Your task to perform on an android device: Search for seafood restaurants on Google Maps Image 0: 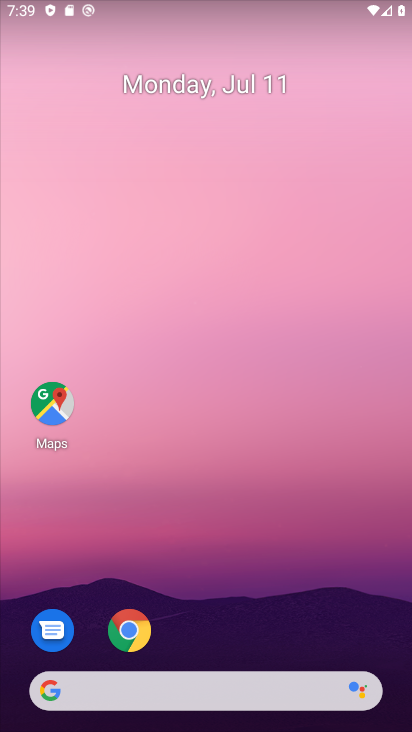
Step 0: click (52, 399)
Your task to perform on an android device: Search for seafood restaurants on Google Maps Image 1: 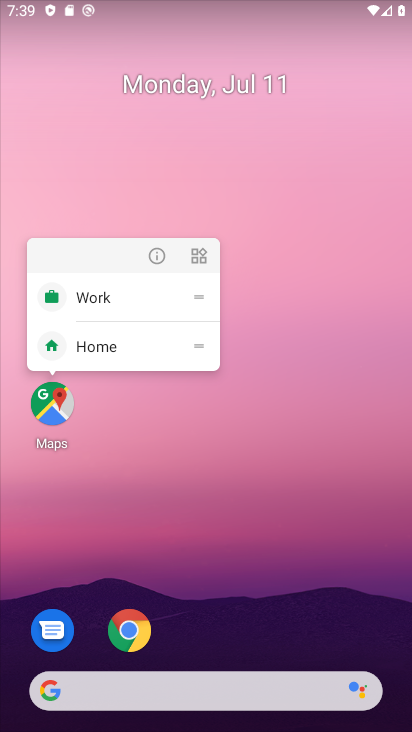
Step 1: click (52, 399)
Your task to perform on an android device: Search for seafood restaurants on Google Maps Image 2: 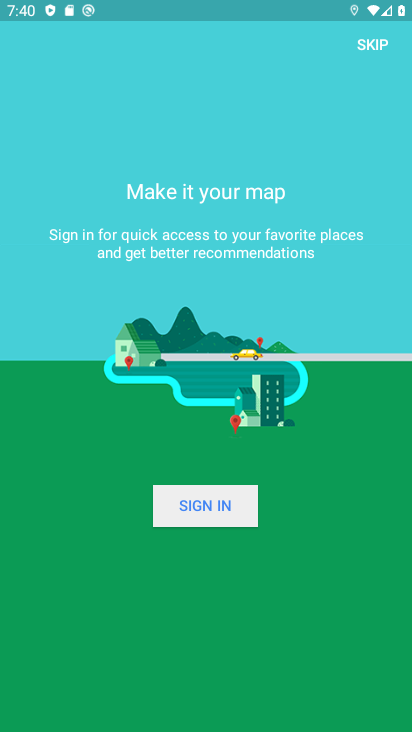
Step 2: click (369, 42)
Your task to perform on an android device: Search for seafood restaurants on Google Maps Image 3: 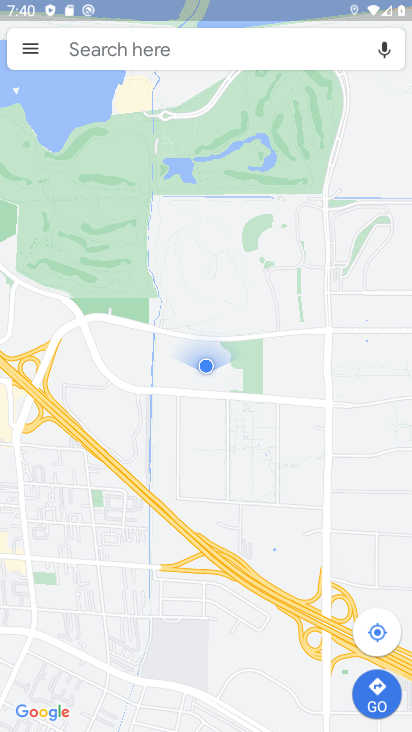
Step 3: click (96, 49)
Your task to perform on an android device: Search for seafood restaurants on Google Maps Image 4: 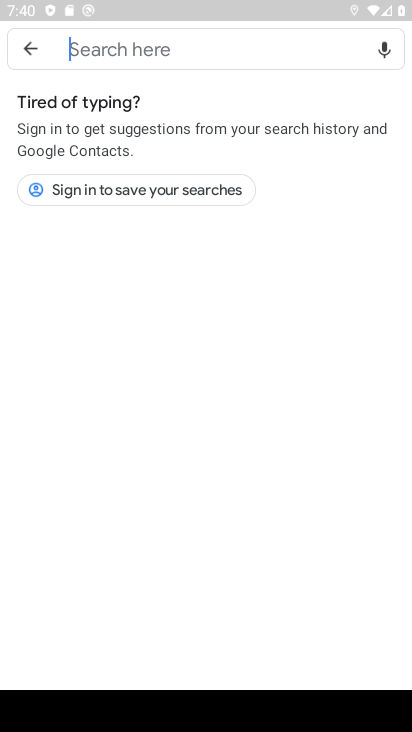
Step 4: type "seafood restaurant"
Your task to perform on an android device: Search for seafood restaurants on Google Maps Image 5: 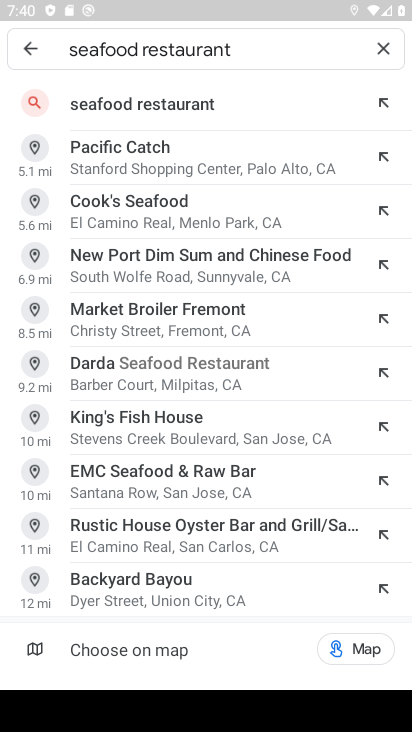
Step 5: click (162, 109)
Your task to perform on an android device: Search for seafood restaurants on Google Maps Image 6: 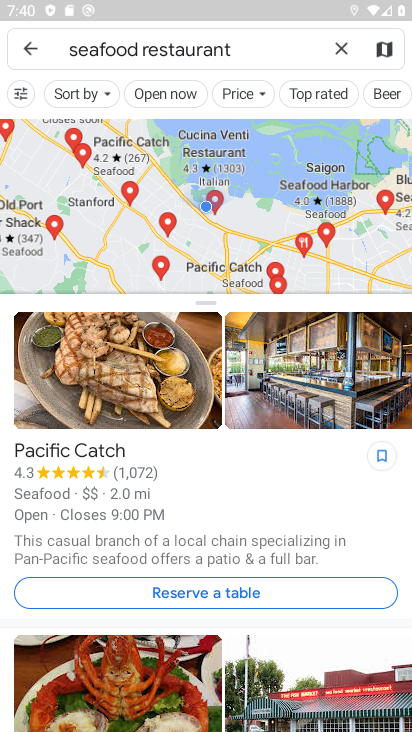
Step 6: task complete